Your task to perform on an android device: delete the emails in spam in the gmail app Image 0: 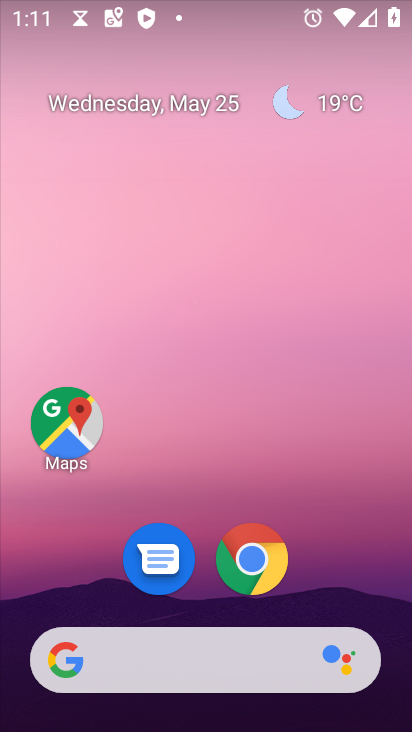
Step 0: drag from (358, 579) to (309, 128)
Your task to perform on an android device: delete the emails in spam in the gmail app Image 1: 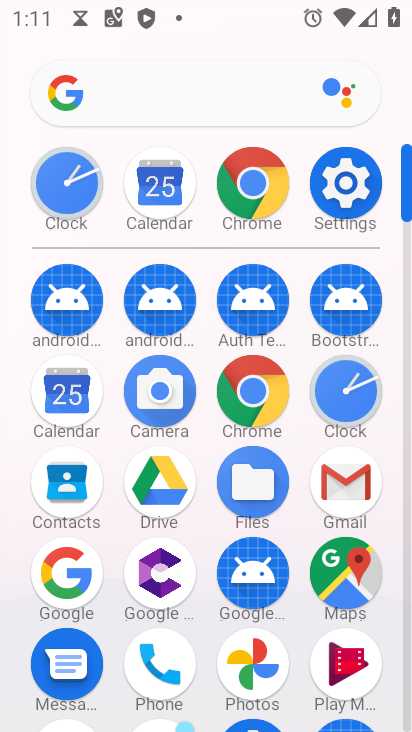
Step 1: click (347, 470)
Your task to perform on an android device: delete the emails in spam in the gmail app Image 2: 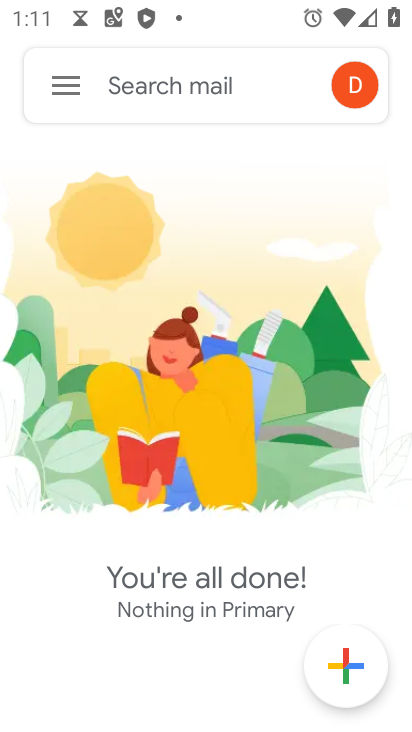
Step 2: click (45, 90)
Your task to perform on an android device: delete the emails in spam in the gmail app Image 3: 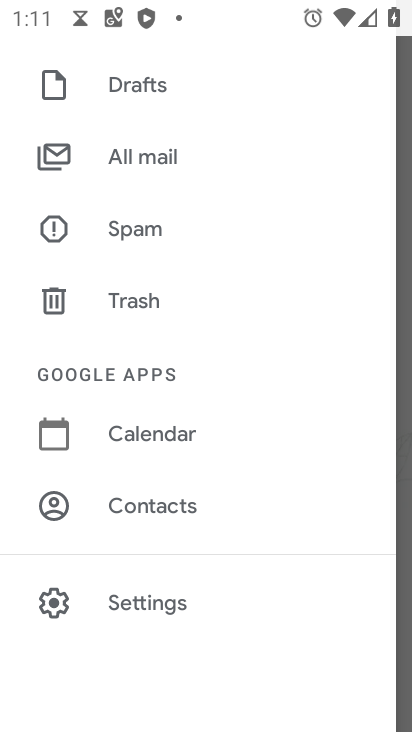
Step 3: drag from (224, 559) to (270, 175)
Your task to perform on an android device: delete the emails in spam in the gmail app Image 4: 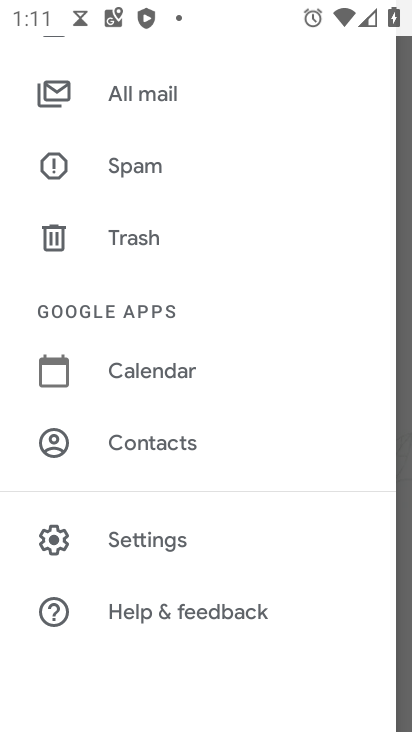
Step 4: click (121, 175)
Your task to perform on an android device: delete the emails in spam in the gmail app Image 5: 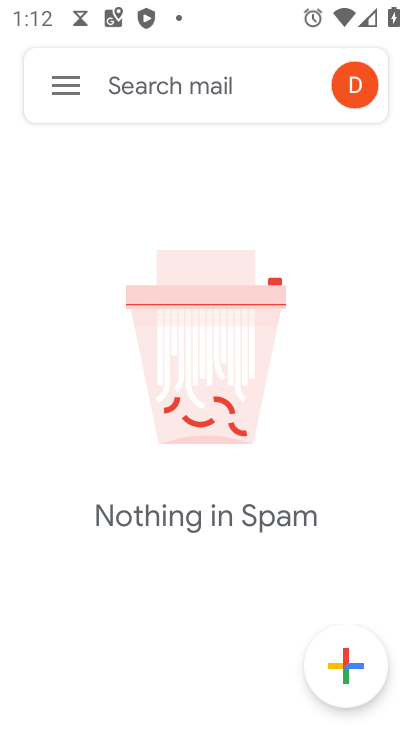
Step 5: task complete